Your task to perform on an android device: Show me popular videos on Youtube Image 0: 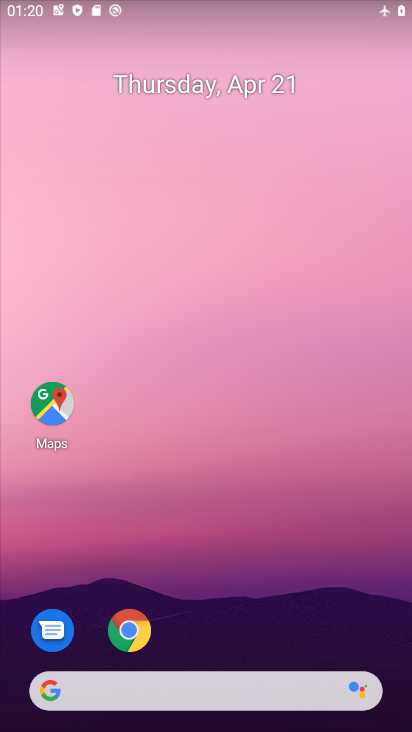
Step 0: drag from (263, 629) to (171, 124)
Your task to perform on an android device: Show me popular videos on Youtube Image 1: 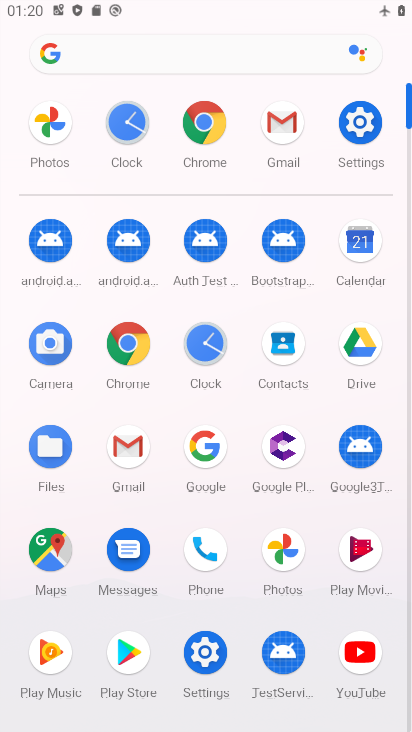
Step 1: click (352, 656)
Your task to perform on an android device: Show me popular videos on Youtube Image 2: 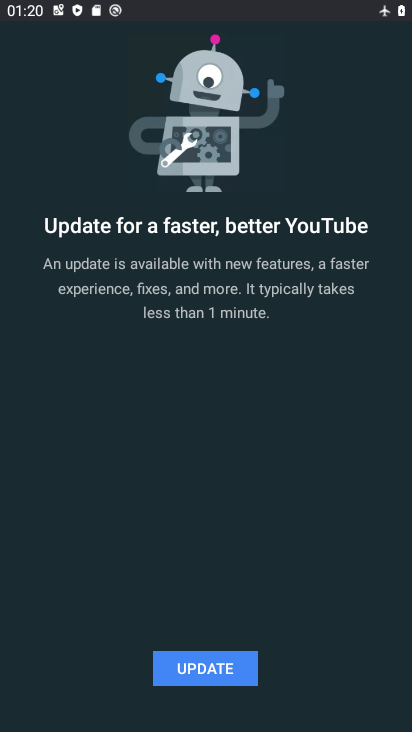
Step 2: click (230, 673)
Your task to perform on an android device: Show me popular videos on Youtube Image 3: 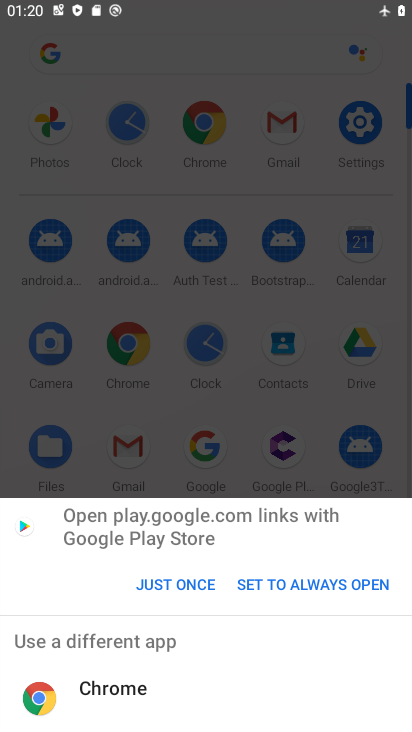
Step 3: click (185, 585)
Your task to perform on an android device: Show me popular videos on Youtube Image 4: 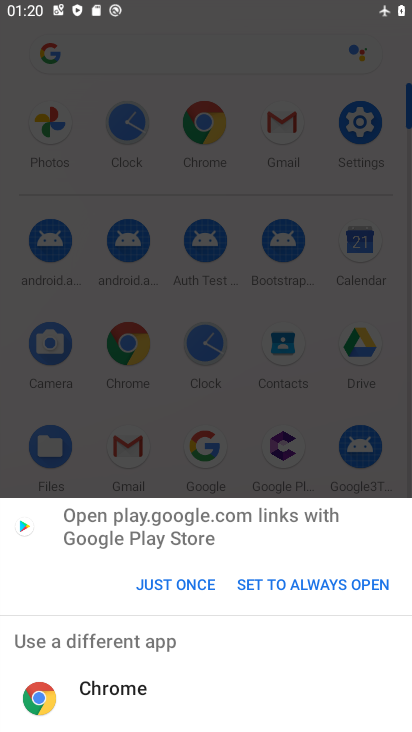
Step 4: click (185, 585)
Your task to perform on an android device: Show me popular videos on Youtube Image 5: 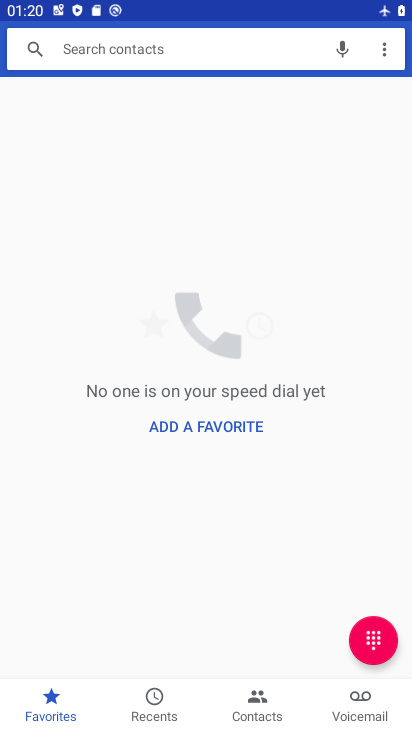
Step 5: press home button
Your task to perform on an android device: Show me popular videos on Youtube Image 6: 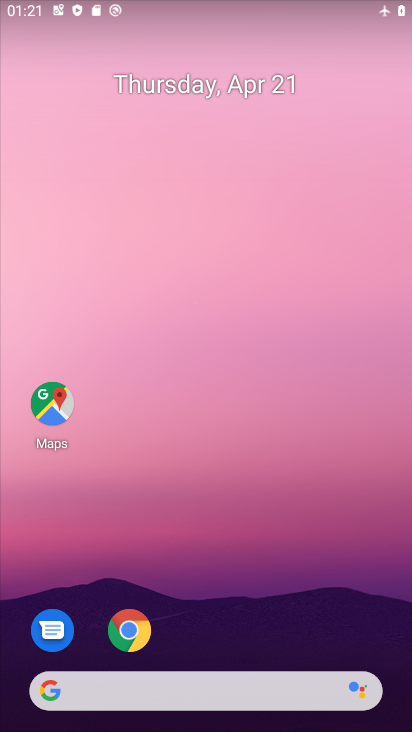
Step 6: drag from (211, 645) to (180, 357)
Your task to perform on an android device: Show me popular videos on Youtube Image 7: 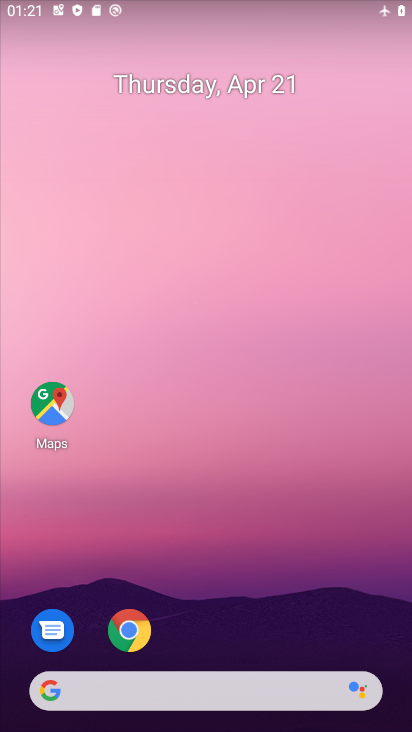
Step 7: drag from (232, 605) to (273, 12)
Your task to perform on an android device: Show me popular videos on Youtube Image 8: 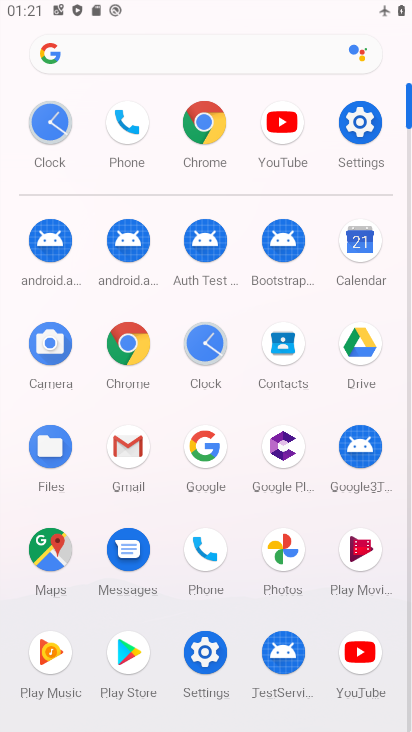
Step 8: click (283, 152)
Your task to perform on an android device: Show me popular videos on Youtube Image 9: 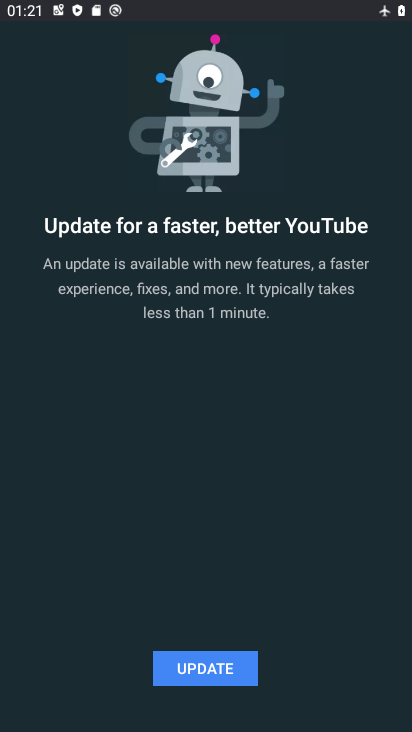
Step 9: click (203, 664)
Your task to perform on an android device: Show me popular videos on Youtube Image 10: 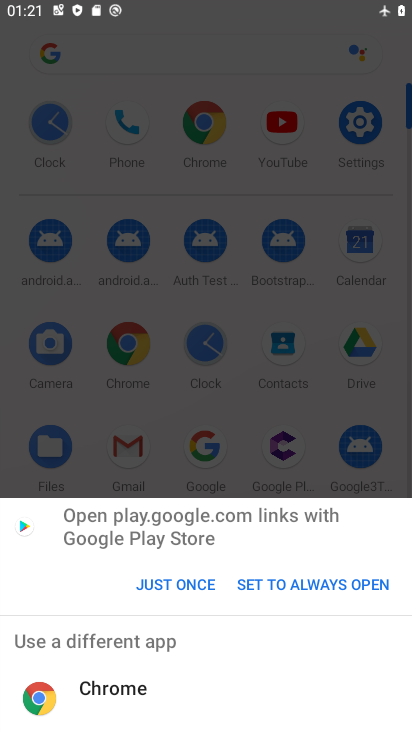
Step 10: click (191, 598)
Your task to perform on an android device: Show me popular videos on Youtube Image 11: 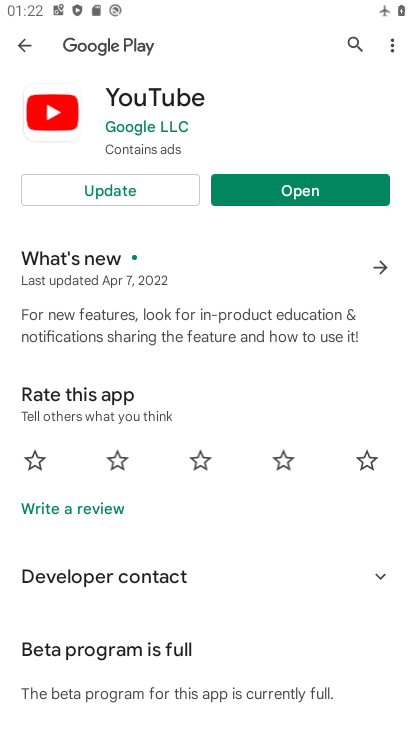
Step 11: click (109, 199)
Your task to perform on an android device: Show me popular videos on Youtube Image 12: 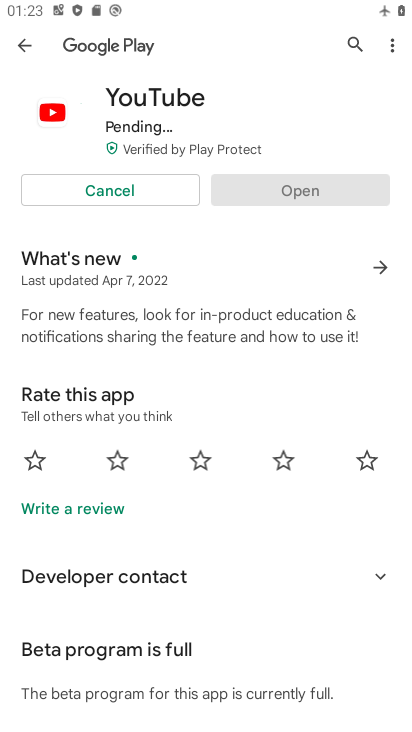
Step 12: task complete